Your task to perform on an android device: Open Chrome and go to the settings page Image 0: 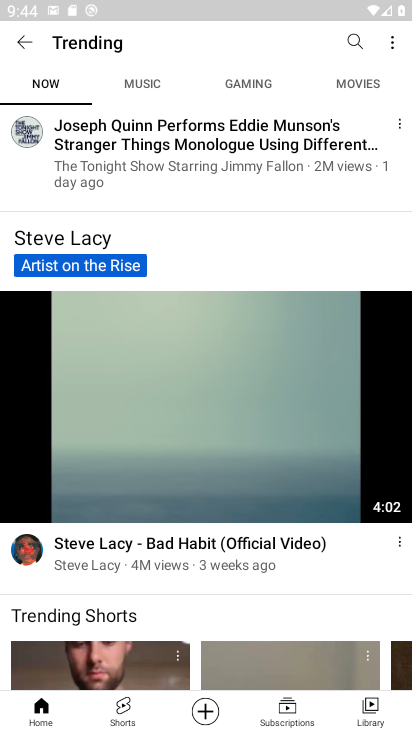
Step 0: press home button
Your task to perform on an android device: Open Chrome and go to the settings page Image 1: 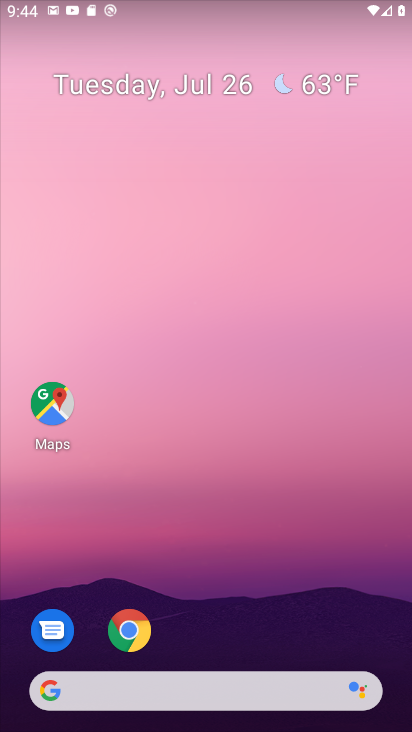
Step 1: drag from (227, 648) to (266, 4)
Your task to perform on an android device: Open Chrome and go to the settings page Image 2: 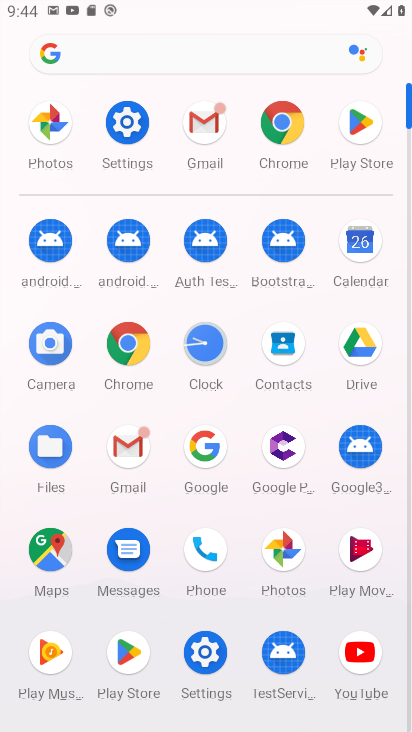
Step 2: click (125, 117)
Your task to perform on an android device: Open Chrome and go to the settings page Image 3: 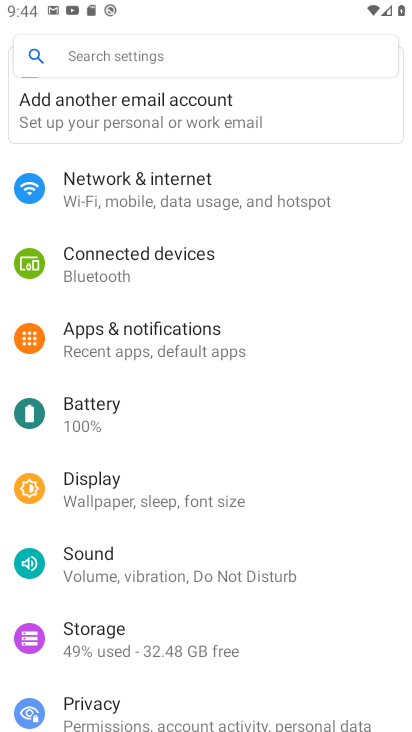
Step 3: press home button
Your task to perform on an android device: Open Chrome and go to the settings page Image 4: 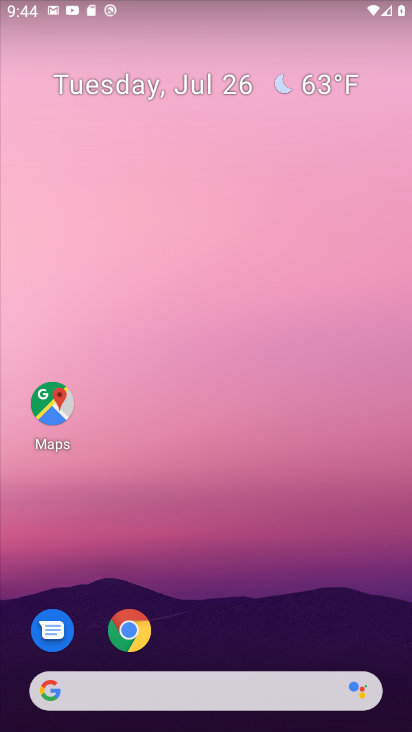
Step 4: drag from (223, 641) to (244, 65)
Your task to perform on an android device: Open Chrome and go to the settings page Image 5: 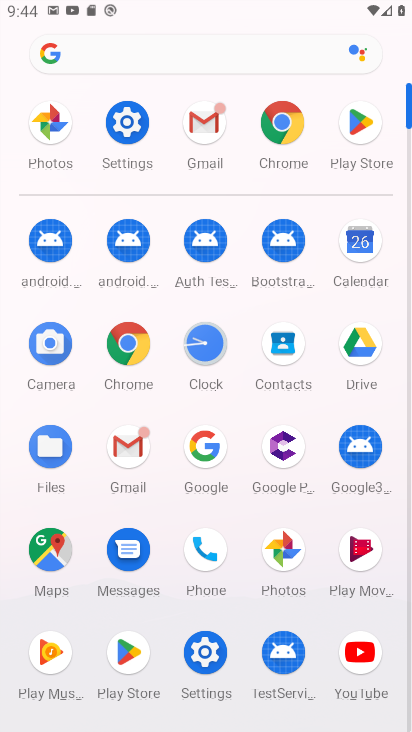
Step 5: click (280, 119)
Your task to perform on an android device: Open Chrome and go to the settings page Image 6: 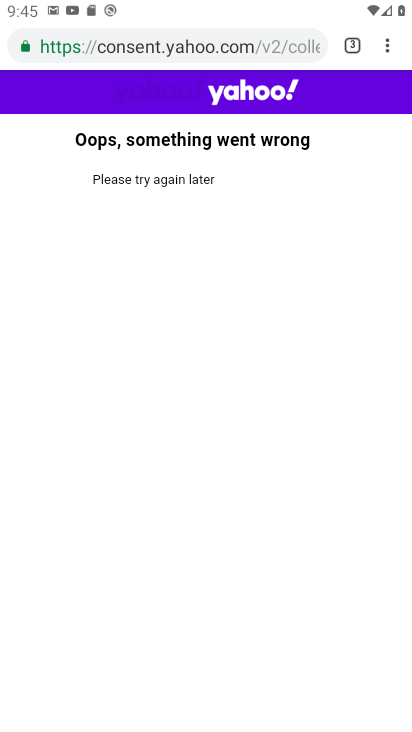
Step 6: click (387, 47)
Your task to perform on an android device: Open Chrome and go to the settings page Image 7: 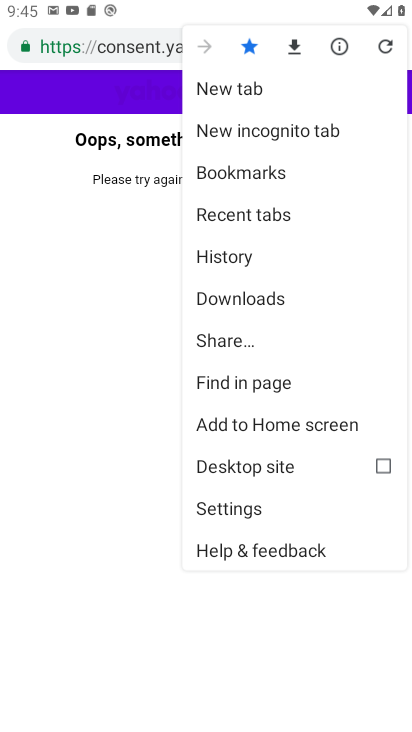
Step 7: click (266, 503)
Your task to perform on an android device: Open Chrome and go to the settings page Image 8: 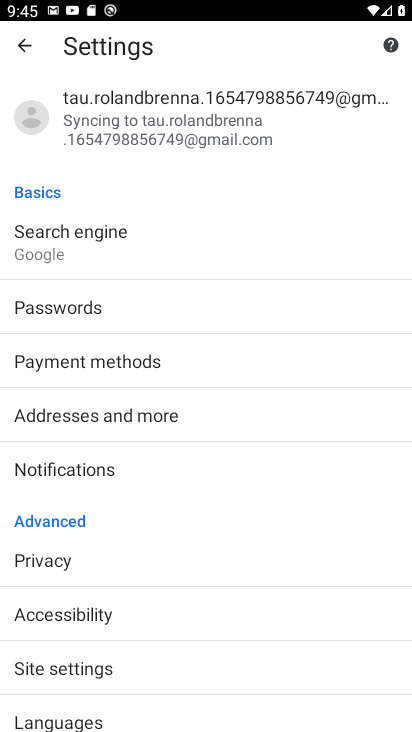
Step 8: task complete